Your task to perform on an android device: Open Google Image 0: 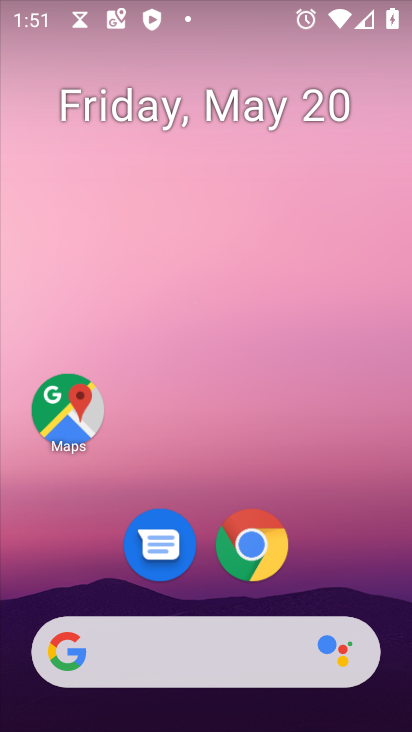
Step 0: drag from (339, 518) to (302, 162)
Your task to perform on an android device: Open Google Image 1: 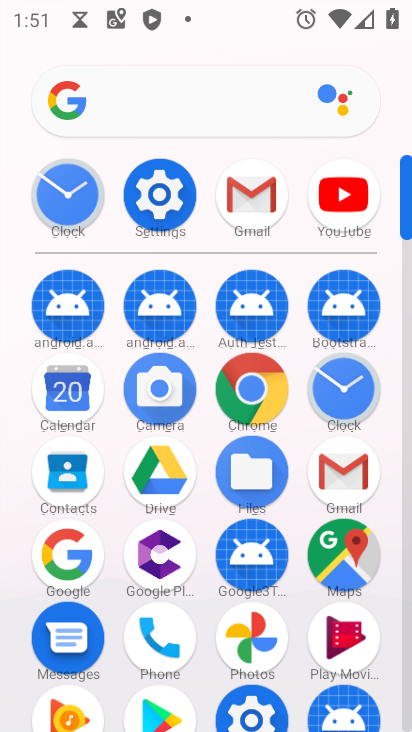
Step 1: click (74, 541)
Your task to perform on an android device: Open Google Image 2: 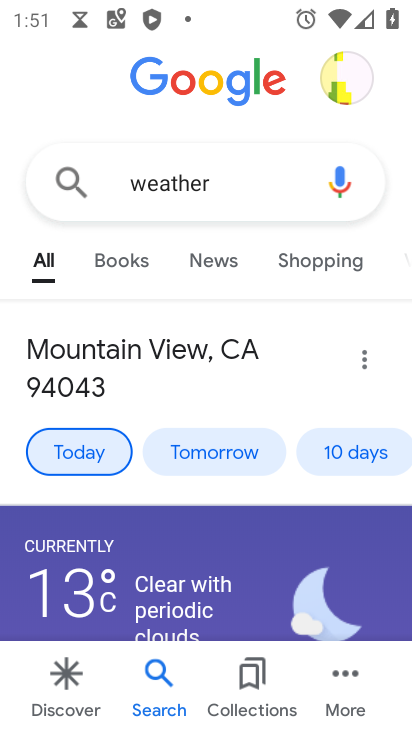
Step 2: task complete